Your task to perform on an android device: toggle airplane mode Image 0: 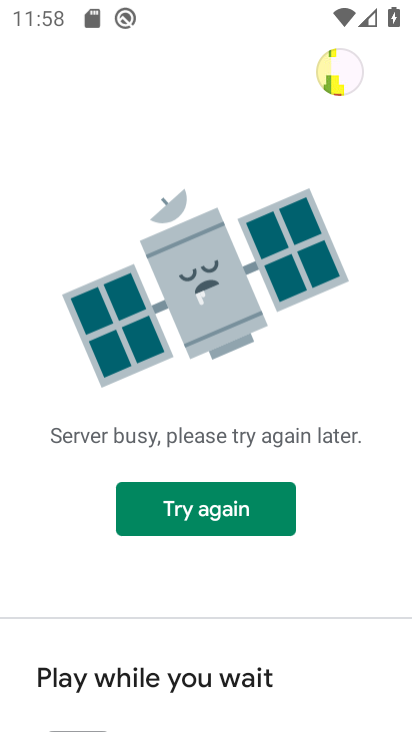
Step 0: press home button
Your task to perform on an android device: toggle airplane mode Image 1: 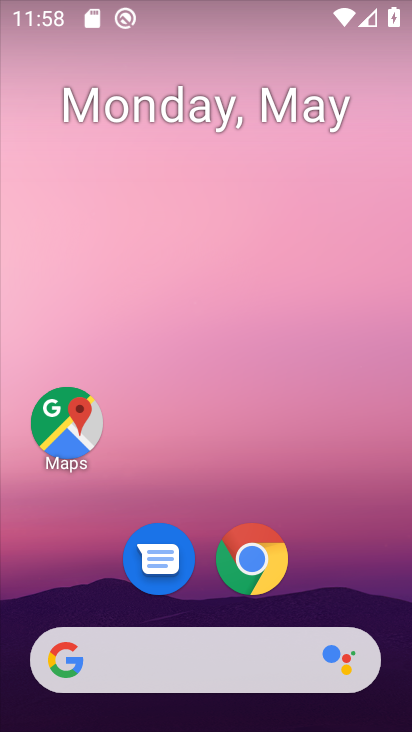
Step 1: drag from (73, 626) to (226, 89)
Your task to perform on an android device: toggle airplane mode Image 2: 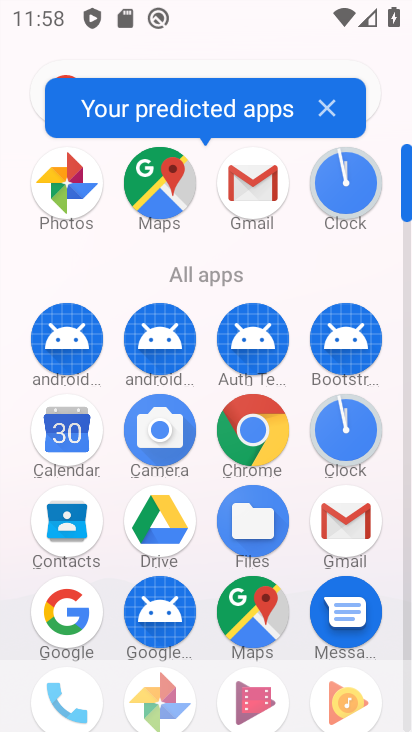
Step 2: drag from (162, 547) to (263, 281)
Your task to perform on an android device: toggle airplane mode Image 3: 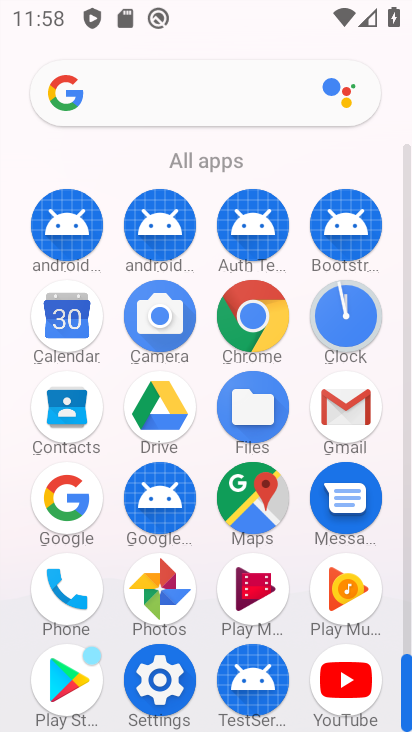
Step 3: click (157, 695)
Your task to perform on an android device: toggle airplane mode Image 4: 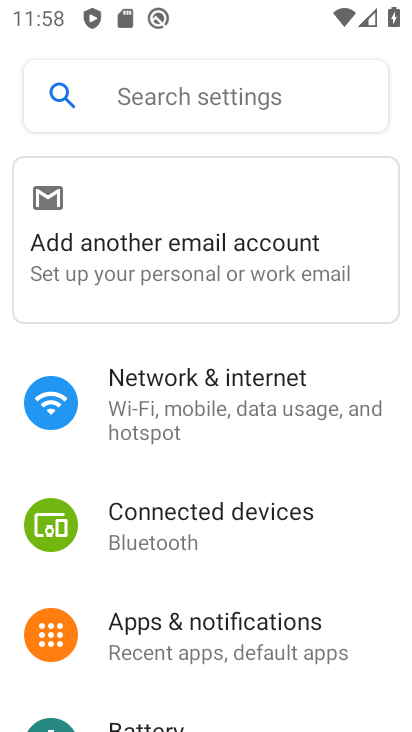
Step 4: click (294, 439)
Your task to perform on an android device: toggle airplane mode Image 5: 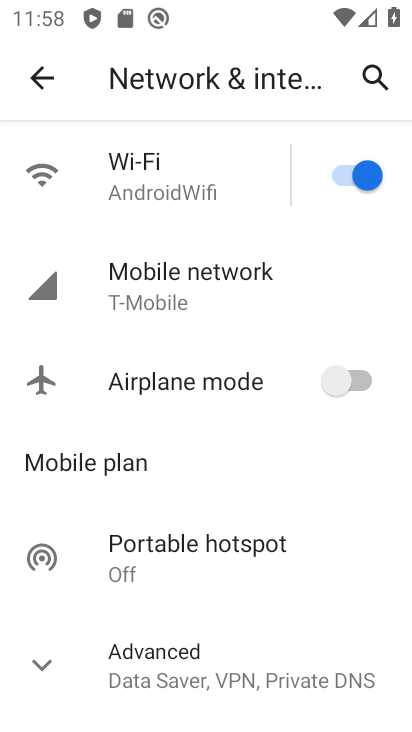
Step 5: click (370, 382)
Your task to perform on an android device: toggle airplane mode Image 6: 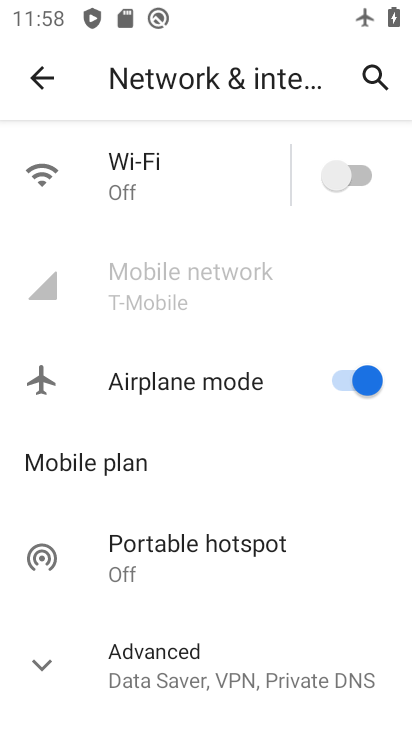
Step 6: task complete